Your task to perform on an android device: Open Reddit.com Image 0: 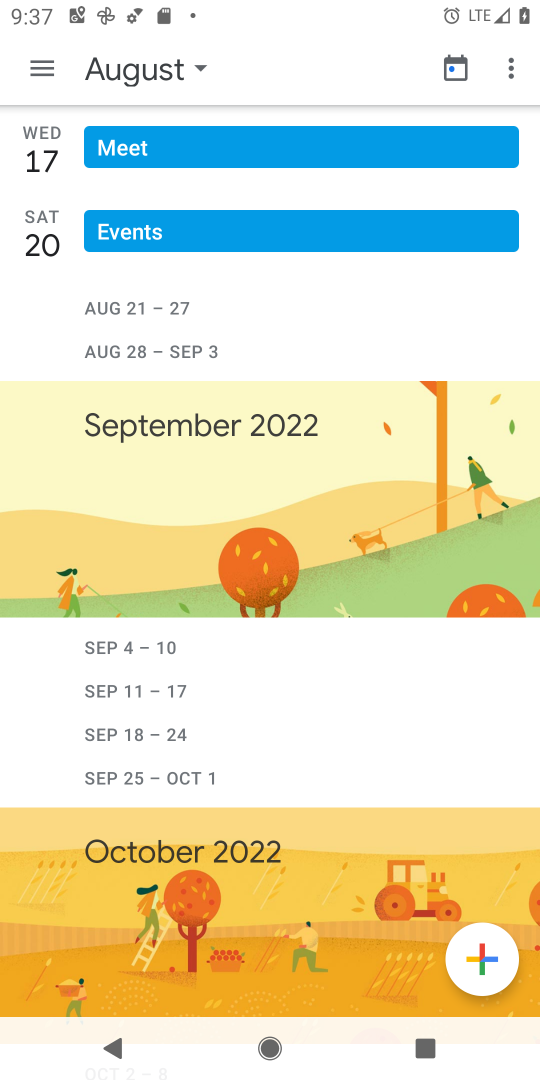
Step 0: press home button
Your task to perform on an android device: Open Reddit.com Image 1: 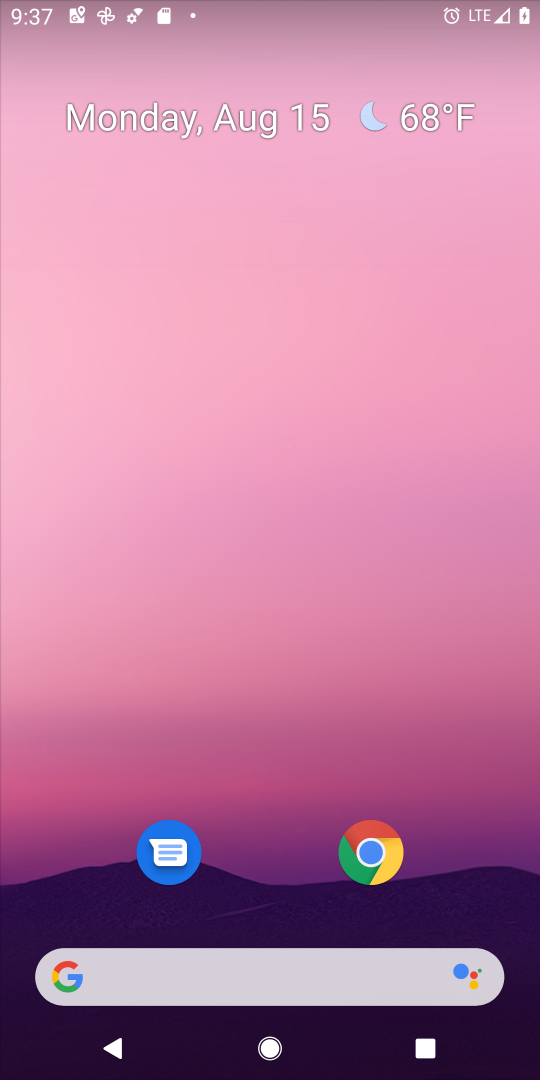
Step 1: drag from (217, 980) to (236, 152)
Your task to perform on an android device: Open Reddit.com Image 2: 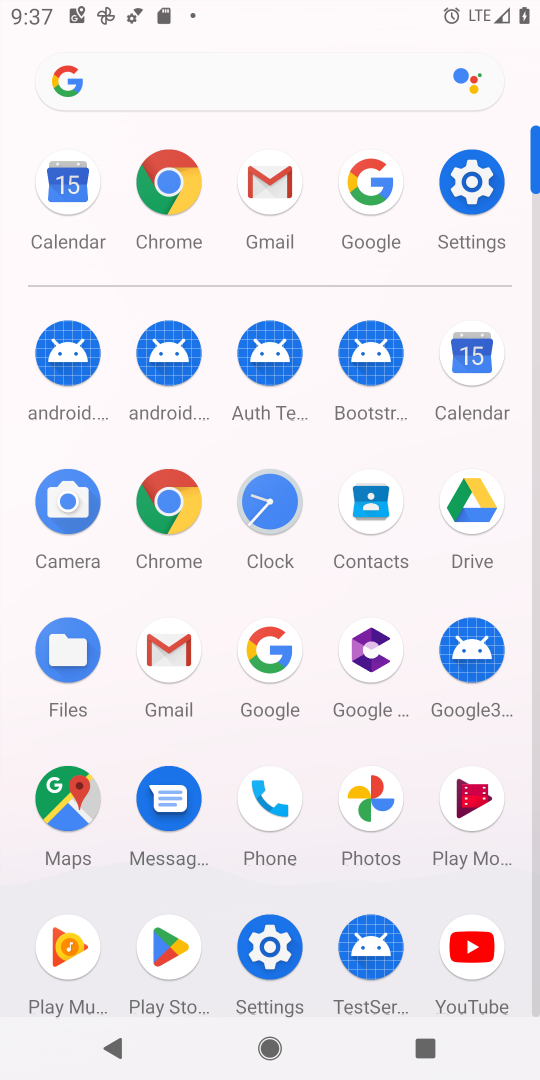
Step 2: click (167, 185)
Your task to perform on an android device: Open Reddit.com Image 3: 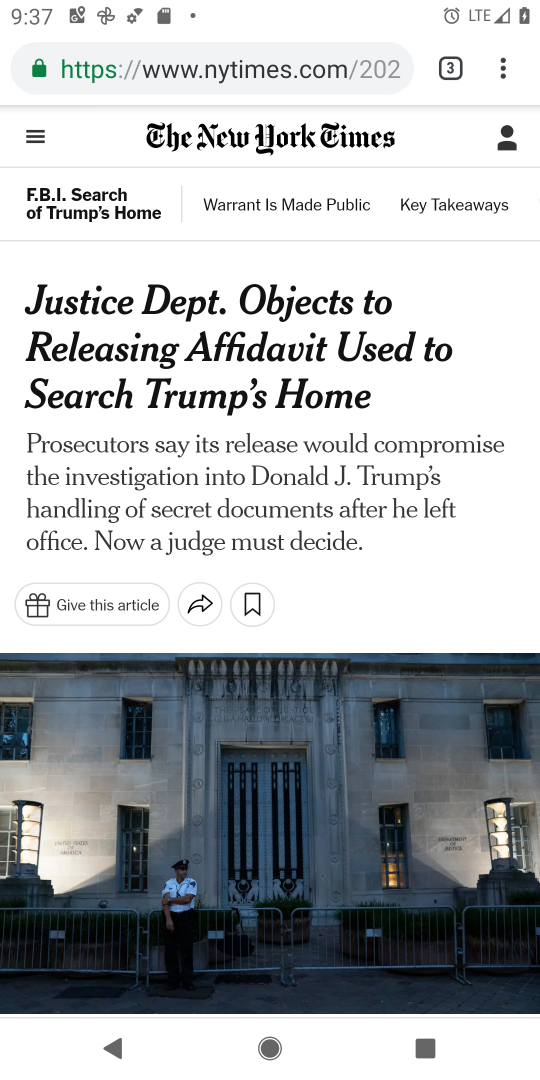
Step 3: click (379, 71)
Your task to perform on an android device: Open Reddit.com Image 4: 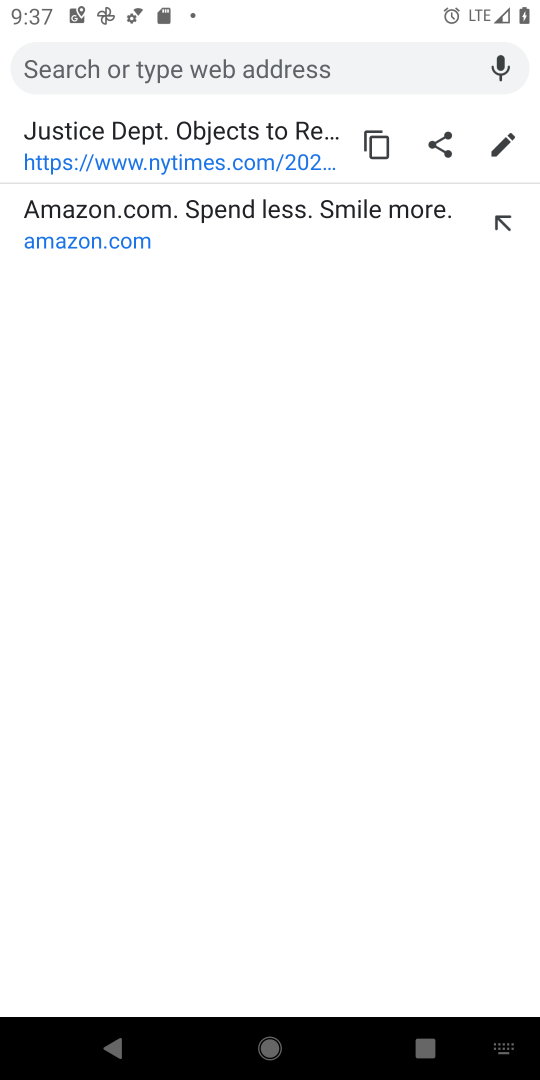
Step 4: type "Reddit.com"
Your task to perform on an android device: Open Reddit.com Image 5: 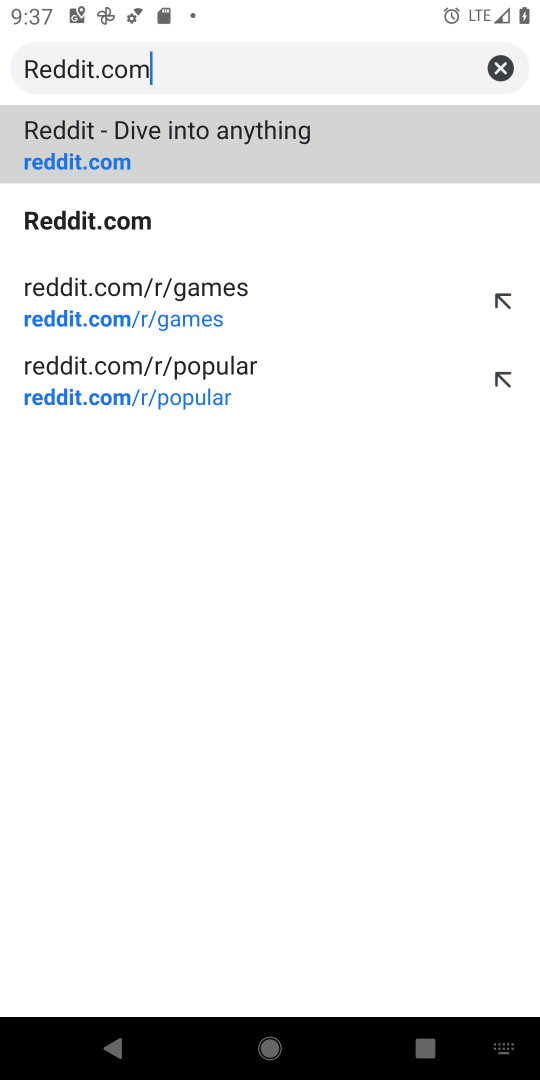
Step 5: click (123, 234)
Your task to perform on an android device: Open Reddit.com Image 6: 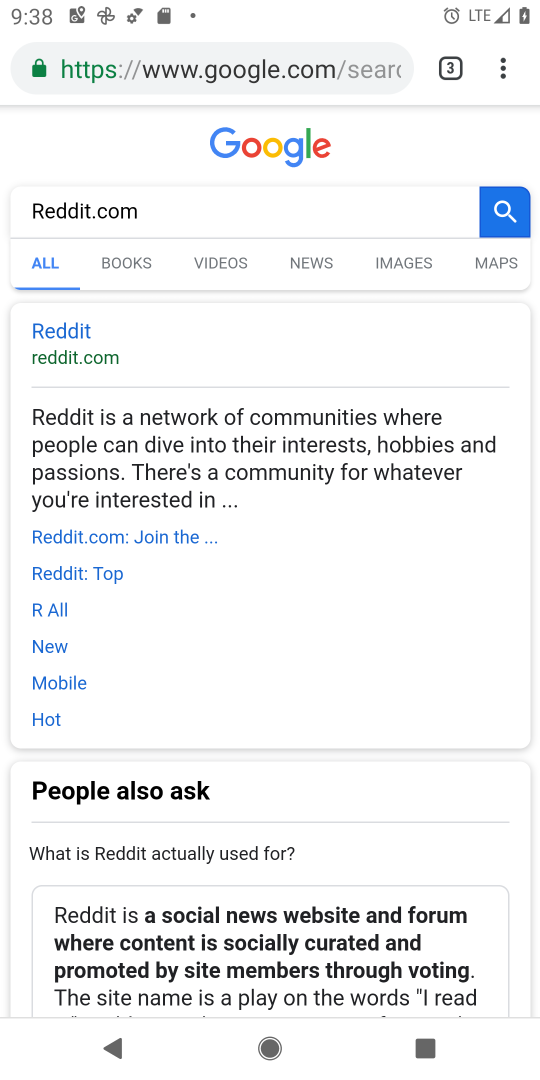
Step 6: click (94, 350)
Your task to perform on an android device: Open Reddit.com Image 7: 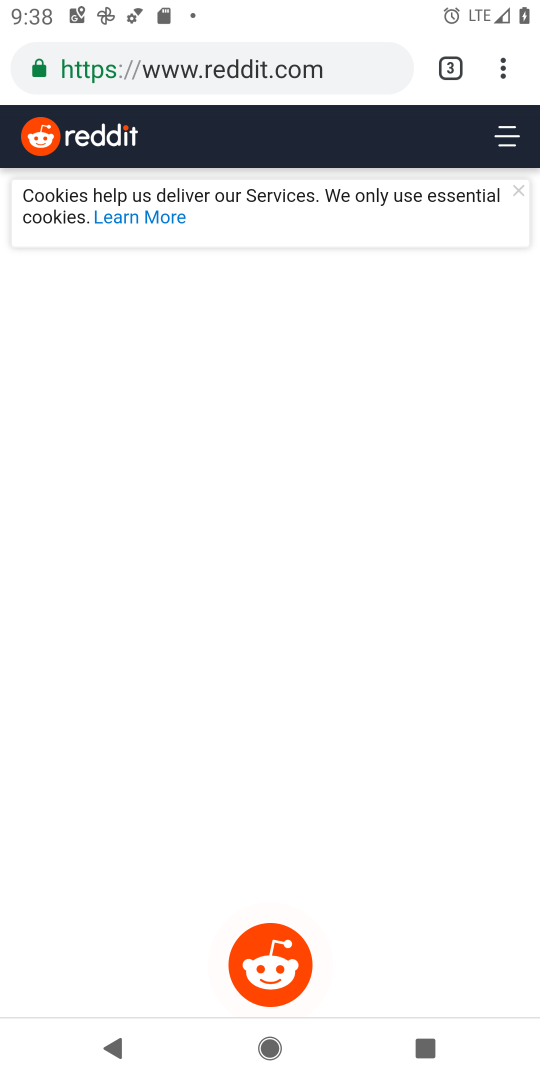
Step 7: task complete